Your task to perform on an android device: turn off smart reply in the gmail app Image 0: 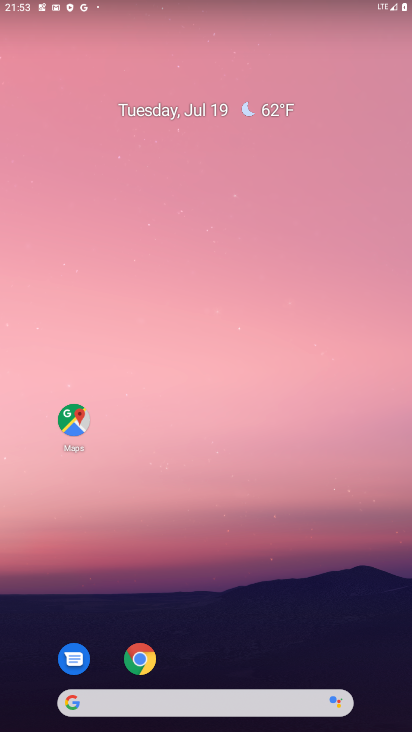
Step 0: drag from (259, 640) to (302, 108)
Your task to perform on an android device: turn off smart reply in the gmail app Image 1: 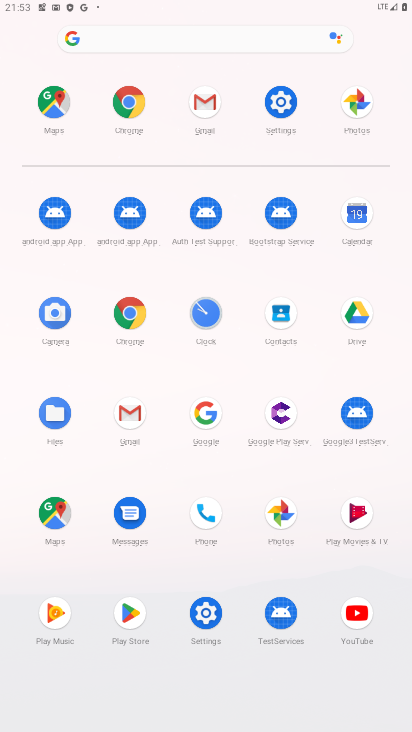
Step 1: click (129, 417)
Your task to perform on an android device: turn off smart reply in the gmail app Image 2: 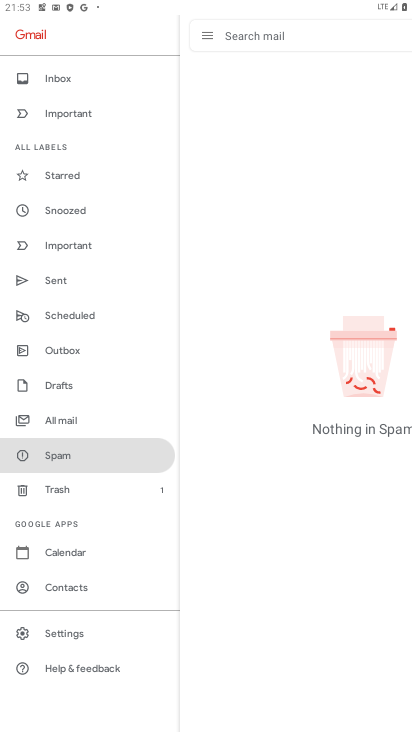
Step 2: drag from (129, 417) to (155, 219)
Your task to perform on an android device: turn off smart reply in the gmail app Image 3: 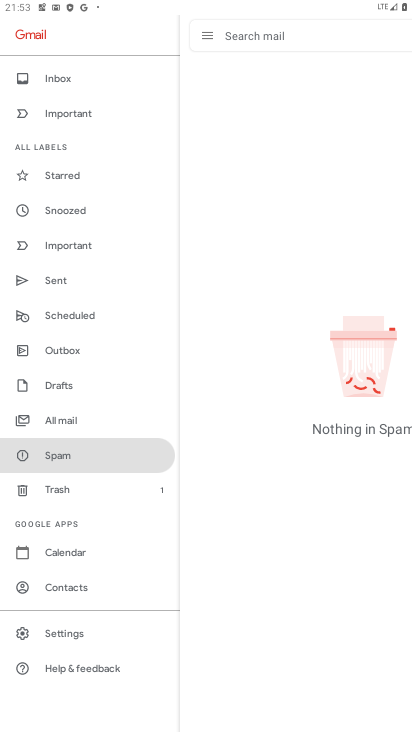
Step 3: click (68, 625)
Your task to perform on an android device: turn off smart reply in the gmail app Image 4: 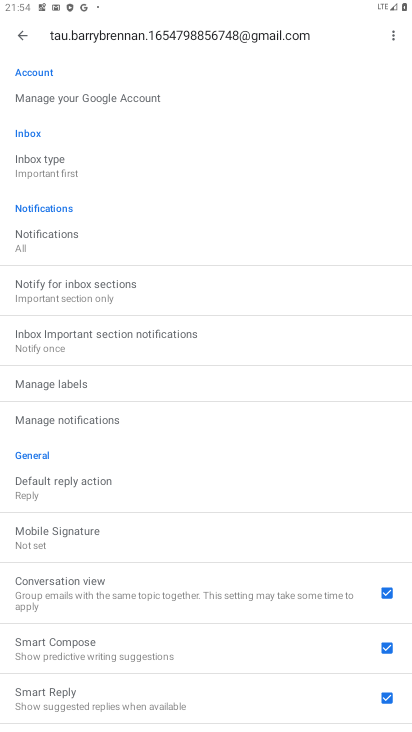
Step 4: drag from (266, 656) to (318, 333)
Your task to perform on an android device: turn off smart reply in the gmail app Image 5: 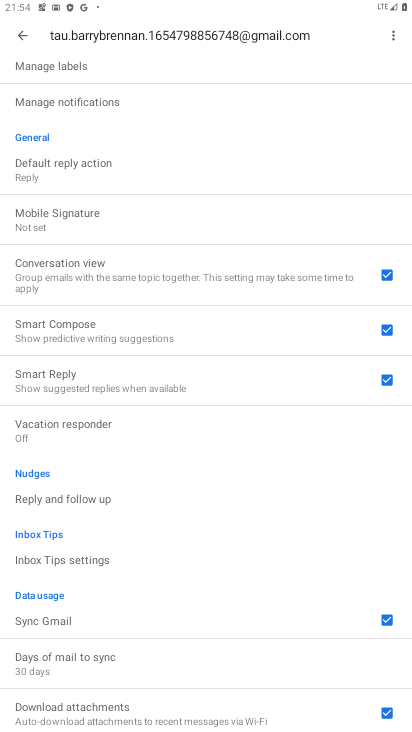
Step 5: click (385, 376)
Your task to perform on an android device: turn off smart reply in the gmail app Image 6: 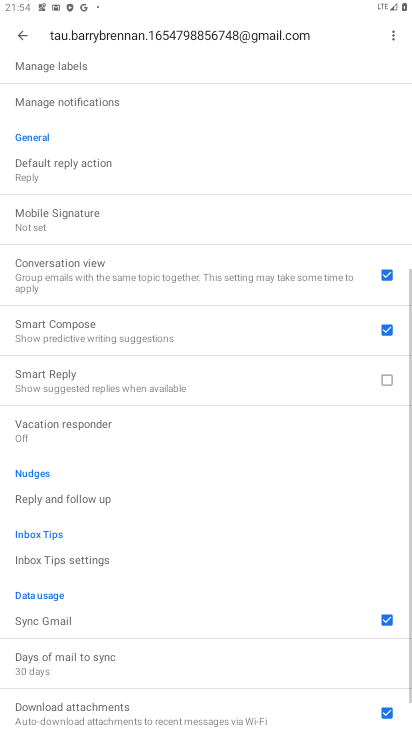
Step 6: task complete